Your task to perform on an android device: What's the weather going to be this weekend? Image 0: 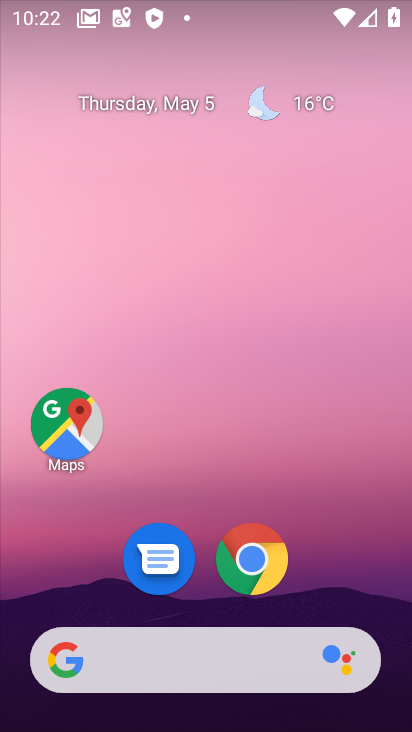
Step 0: drag from (348, 589) to (265, 120)
Your task to perform on an android device: What's the weather going to be this weekend? Image 1: 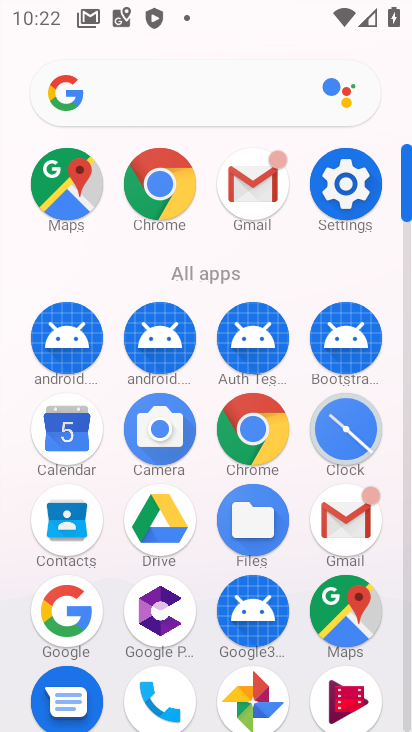
Step 1: click (169, 211)
Your task to perform on an android device: What's the weather going to be this weekend? Image 2: 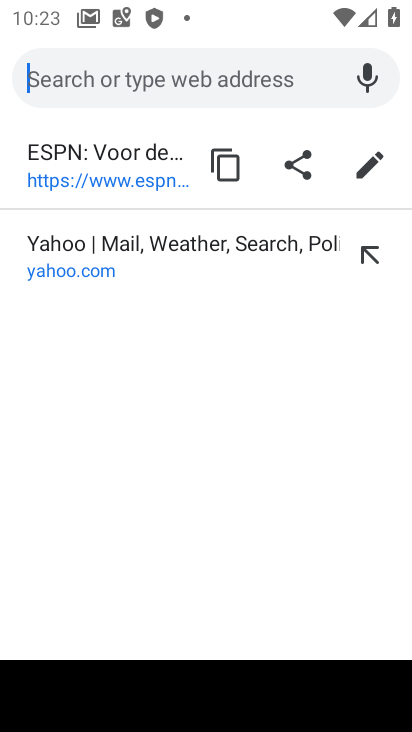
Step 2: click (216, 78)
Your task to perform on an android device: What's the weather going to be this weekend? Image 3: 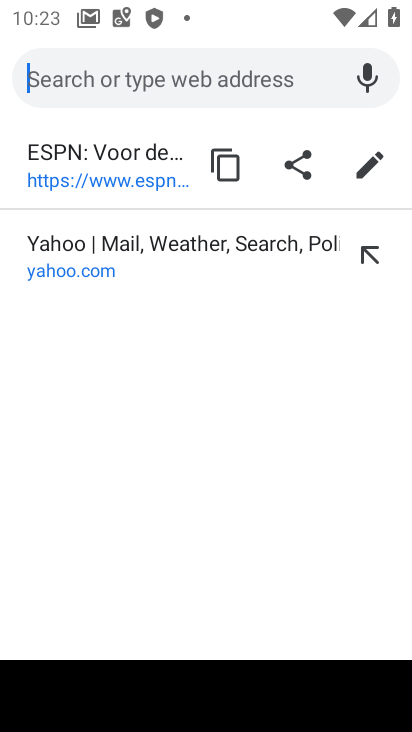
Step 3: type "What's the weather going to be this weekend?"
Your task to perform on an android device: What's the weather going to be this weekend? Image 4: 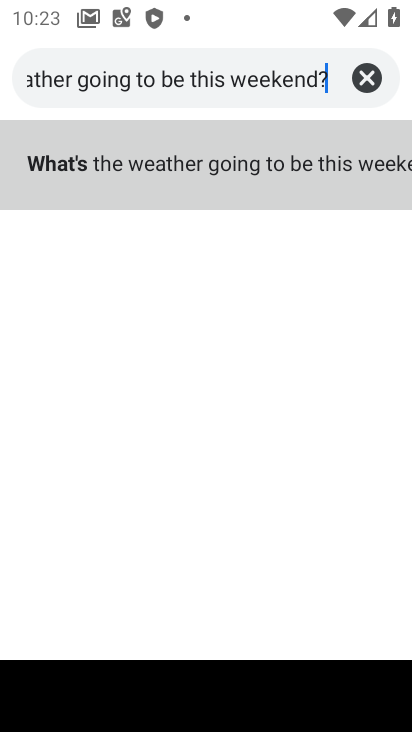
Step 4: press enter
Your task to perform on an android device: What's the weather going to be this weekend? Image 5: 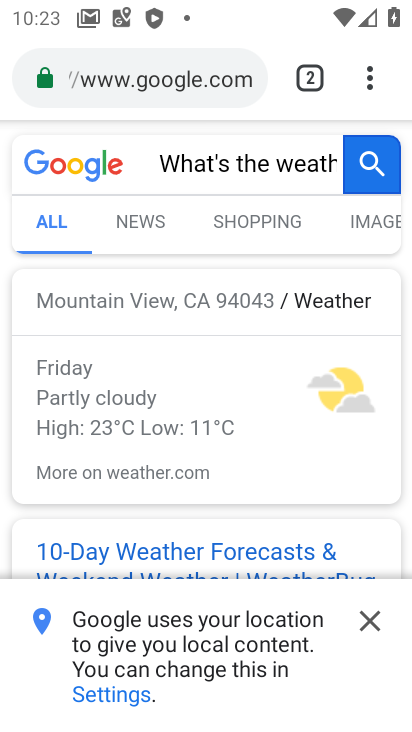
Step 5: click (364, 628)
Your task to perform on an android device: What's the weather going to be this weekend? Image 6: 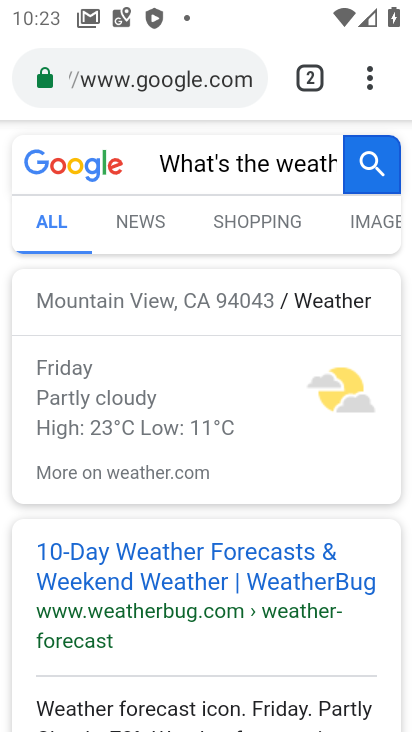
Step 6: click (286, 562)
Your task to perform on an android device: What's the weather going to be this weekend? Image 7: 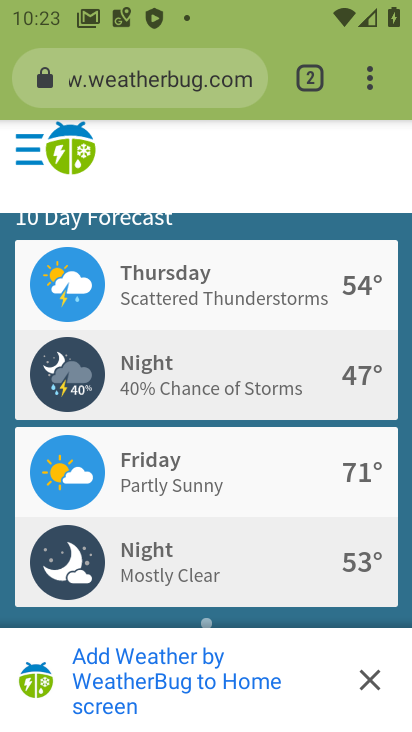
Step 7: click (361, 684)
Your task to perform on an android device: What's the weather going to be this weekend? Image 8: 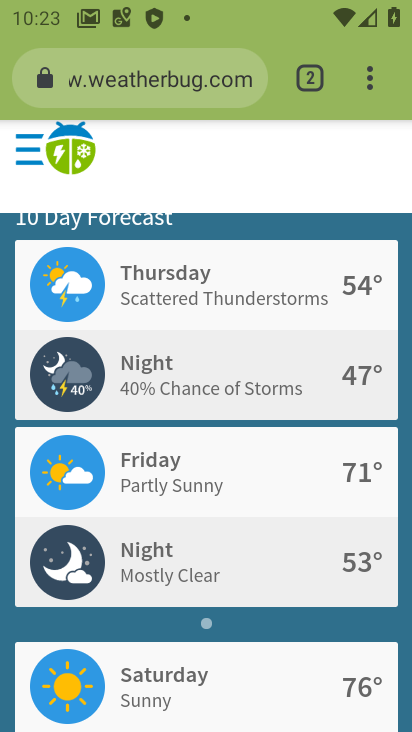
Step 8: task complete